Your task to perform on an android device: change the clock display to analog Image 0: 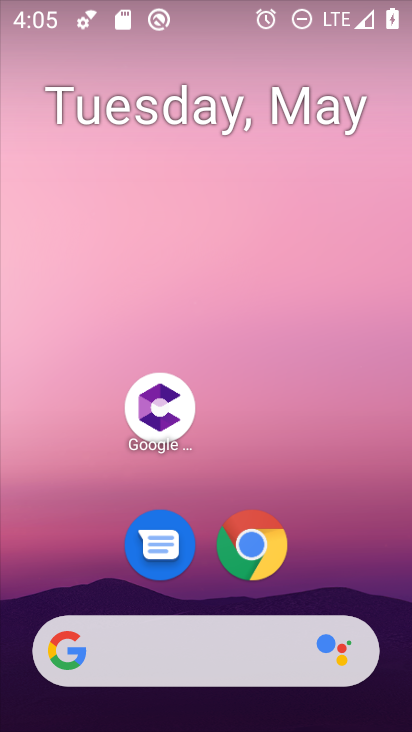
Step 0: drag from (374, 554) to (364, 124)
Your task to perform on an android device: change the clock display to analog Image 1: 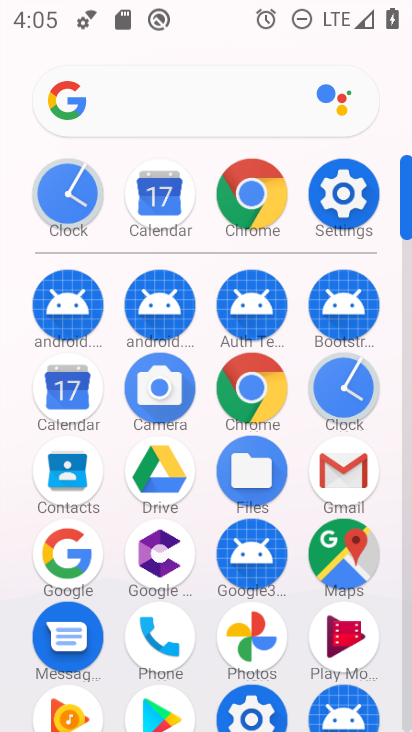
Step 1: click (357, 402)
Your task to perform on an android device: change the clock display to analog Image 2: 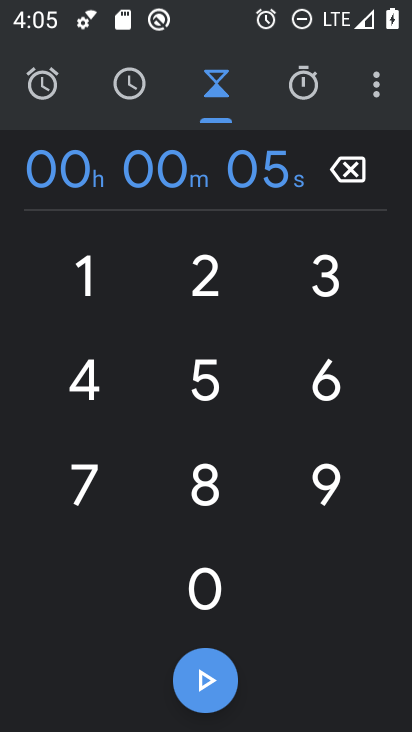
Step 2: click (379, 97)
Your task to perform on an android device: change the clock display to analog Image 3: 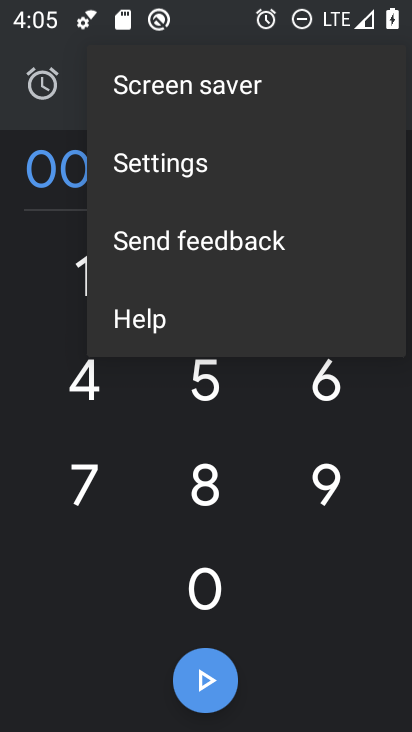
Step 3: click (191, 169)
Your task to perform on an android device: change the clock display to analog Image 4: 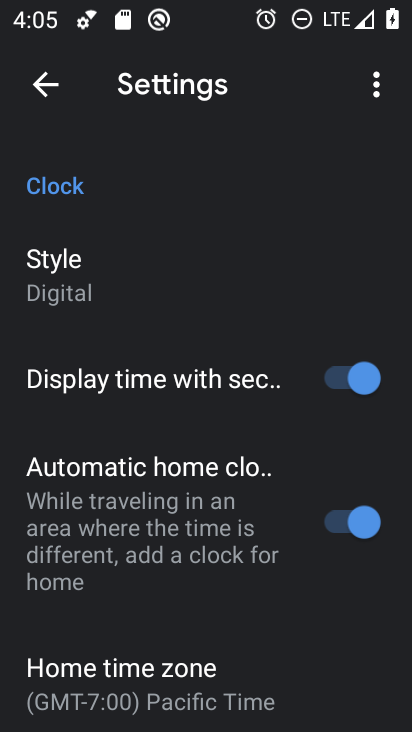
Step 4: drag from (301, 664) to (301, 533)
Your task to perform on an android device: change the clock display to analog Image 5: 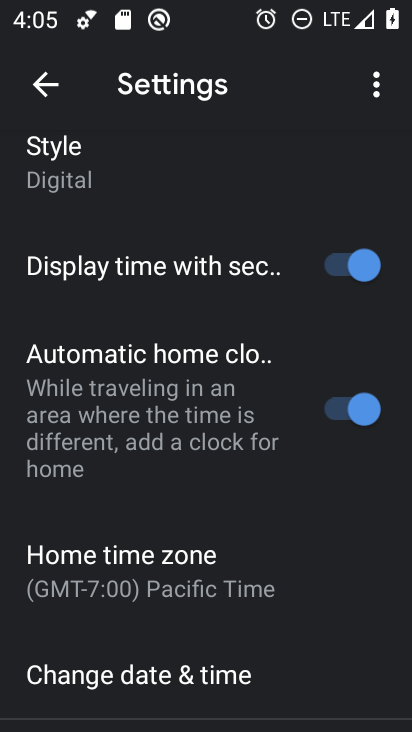
Step 5: drag from (302, 660) to (301, 563)
Your task to perform on an android device: change the clock display to analog Image 6: 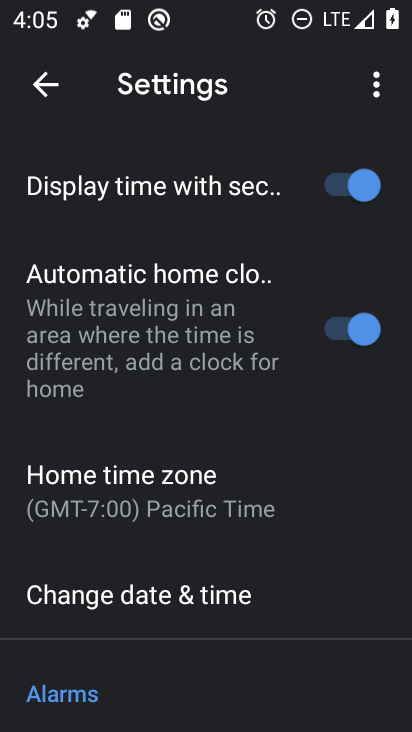
Step 6: drag from (300, 656) to (298, 532)
Your task to perform on an android device: change the clock display to analog Image 7: 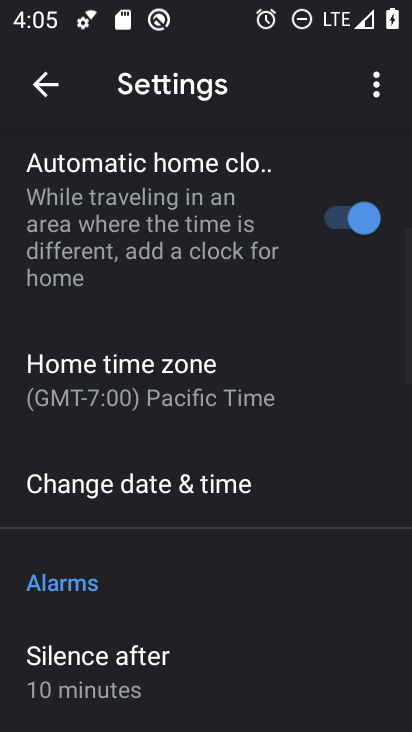
Step 7: drag from (307, 659) to (308, 543)
Your task to perform on an android device: change the clock display to analog Image 8: 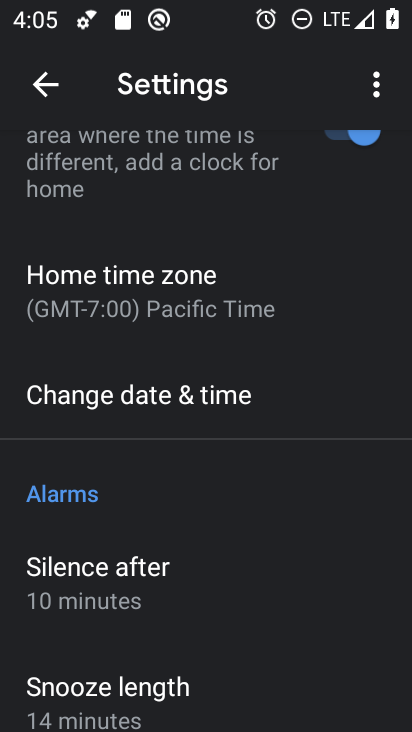
Step 8: drag from (302, 650) to (301, 514)
Your task to perform on an android device: change the clock display to analog Image 9: 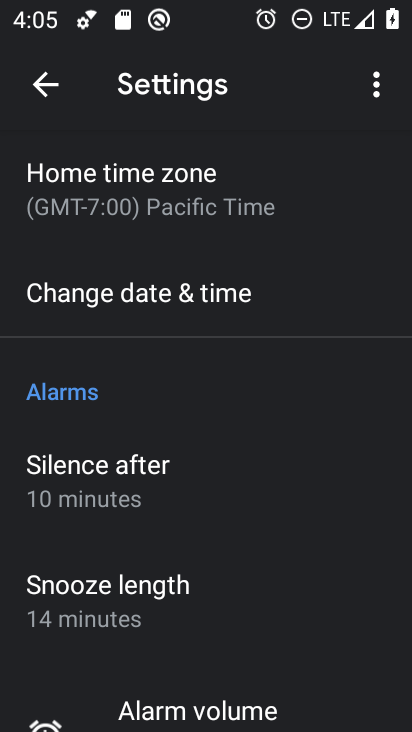
Step 9: drag from (274, 651) to (265, 474)
Your task to perform on an android device: change the clock display to analog Image 10: 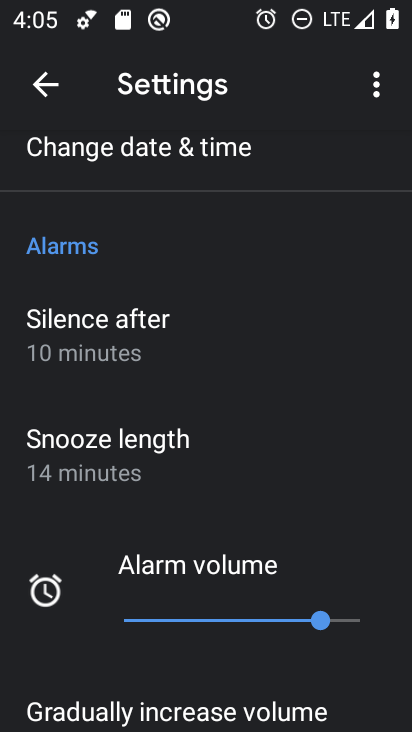
Step 10: drag from (265, 662) to (260, 465)
Your task to perform on an android device: change the clock display to analog Image 11: 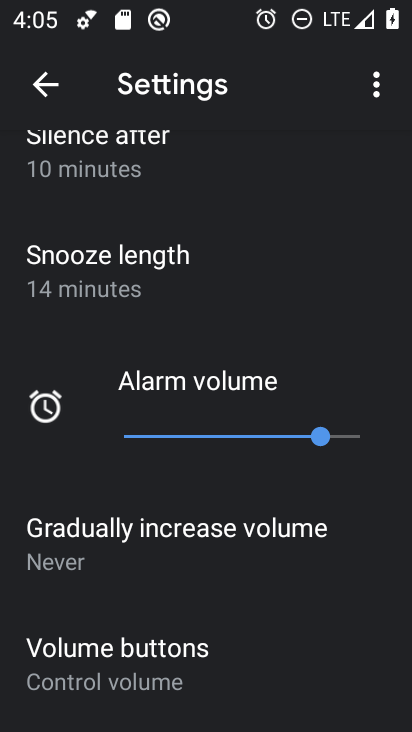
Step 11: drag from (256, 651) to (253, 526)
Your task to perform on an android device: change the clock display to analog Image 12: 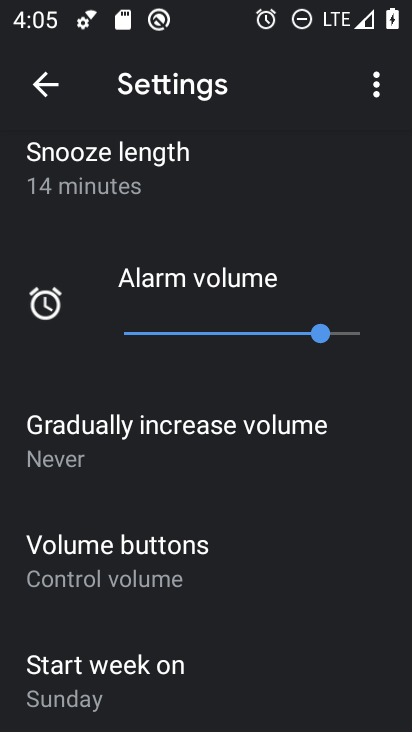
Step 12: drag from (238, 672) to (248, 509)
Your task to perform on an android device: change the clock display to analog Image 13: 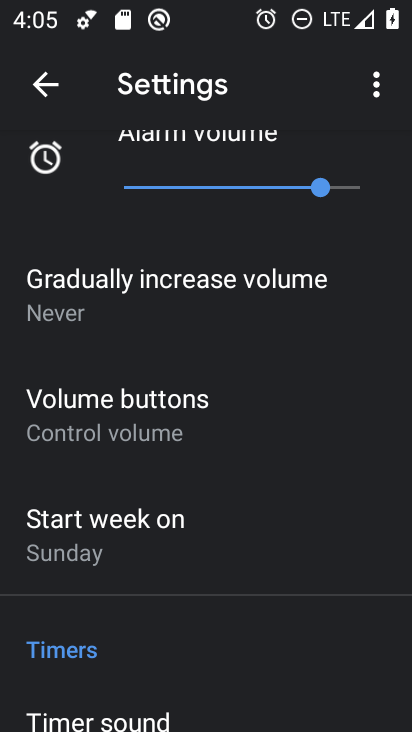
Step 13: drag from (338, 360) to (328, 526)
Your task to perform on an android device: change the clock display to analog Image 14: 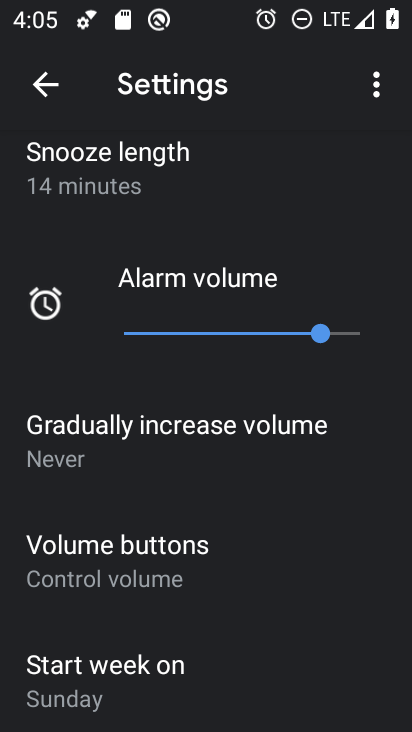
Step 14: drag from (346, 269) to (341, 494)
Your task to perform on an android device: change the clock display to analog Image 15: 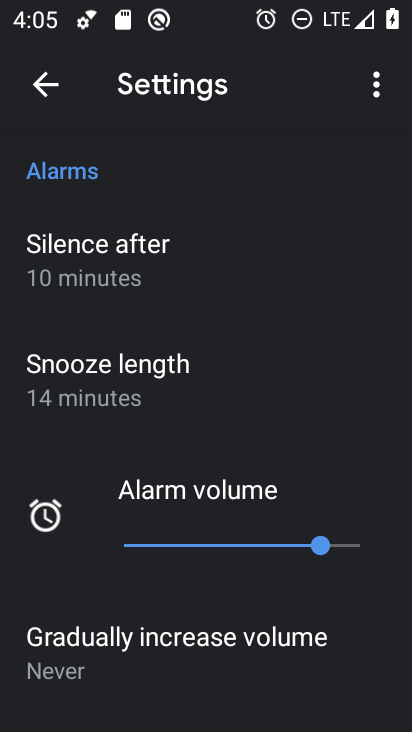
Step 15: drag from (320, 285) to (312, 419)
Your task to perform on an android device: change the clock display to analog Image 16: 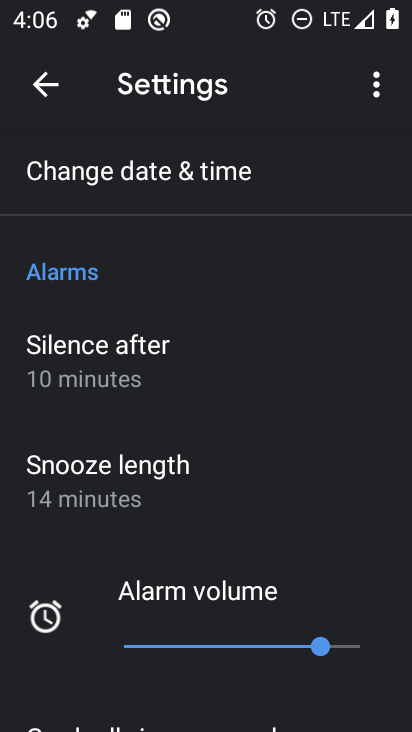
Step 16: drag from (307, 217) to (293, 374)
Your task to perform on an android device: change the clock display to analog Image 17: 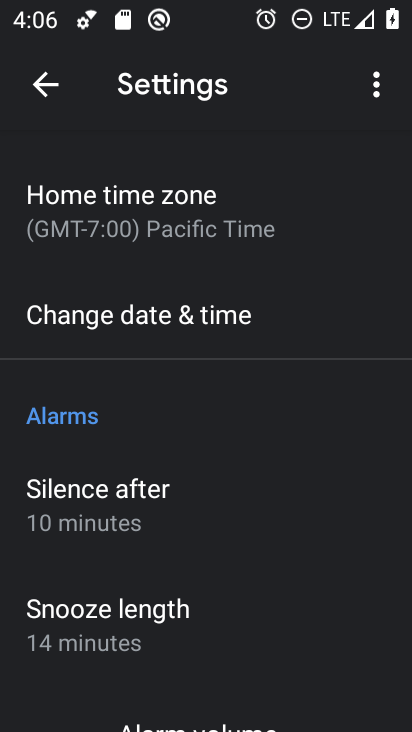
Step 17: drag from (315, 218) to (317, 381)
Your task to perform on an android device: change the clock display to analog Image 18: 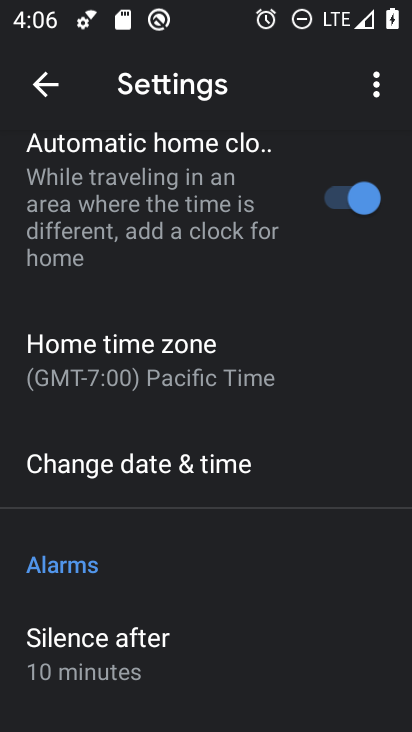
Step 18: drag from (289, 178) to (285, 339)
Your task to perform on an android device: change the clock display to analog Image 19: 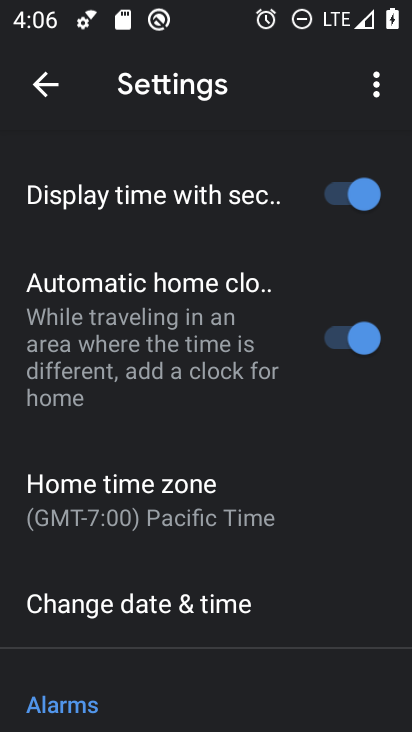
Step 19: drag from (288, 174) to (283, 367)
Your task to perform on an android device: change the clock display to analog Image 20: 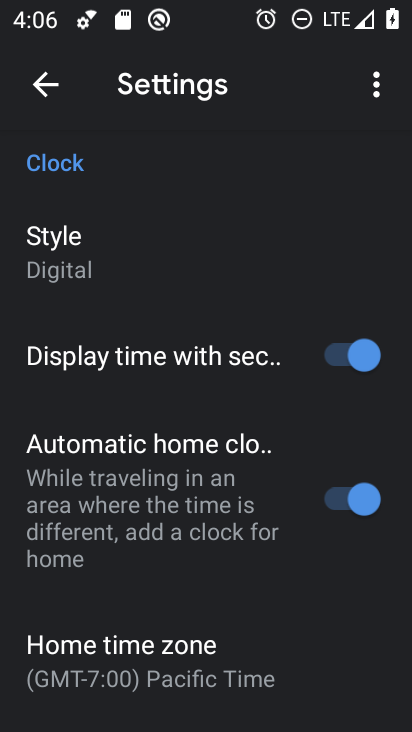
Step 20: click (60, 270)
Your task to perform on an android device: change the clock display to analog Image 21: 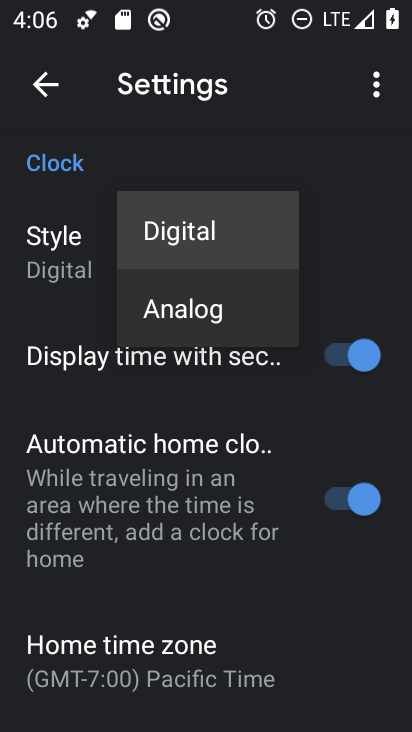
Step 21: click (217, 313)
Your task to perform on an android device: change the clock display to analog Image 22: 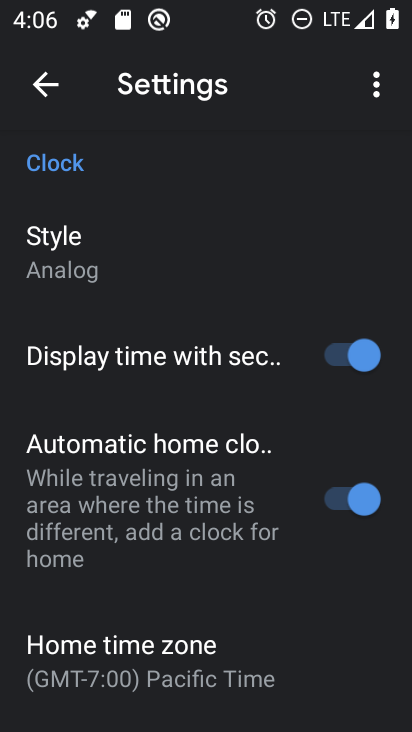
Step 22: task complete